Your task to perform on an android device: What's the latest video from GameXplain? Image 0: 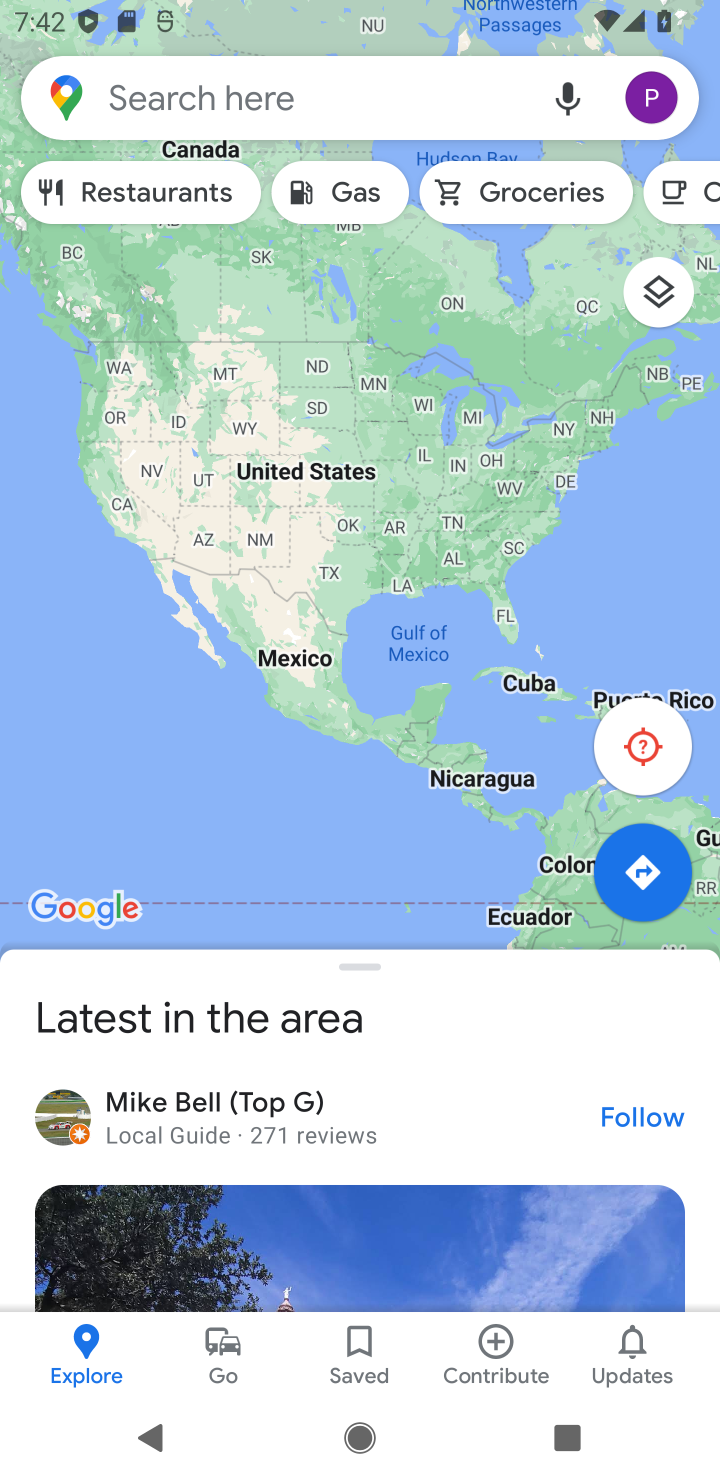
Step 0: press back button
Your task to perform on an android device: What's the latest video from GameXplain? Image 1: 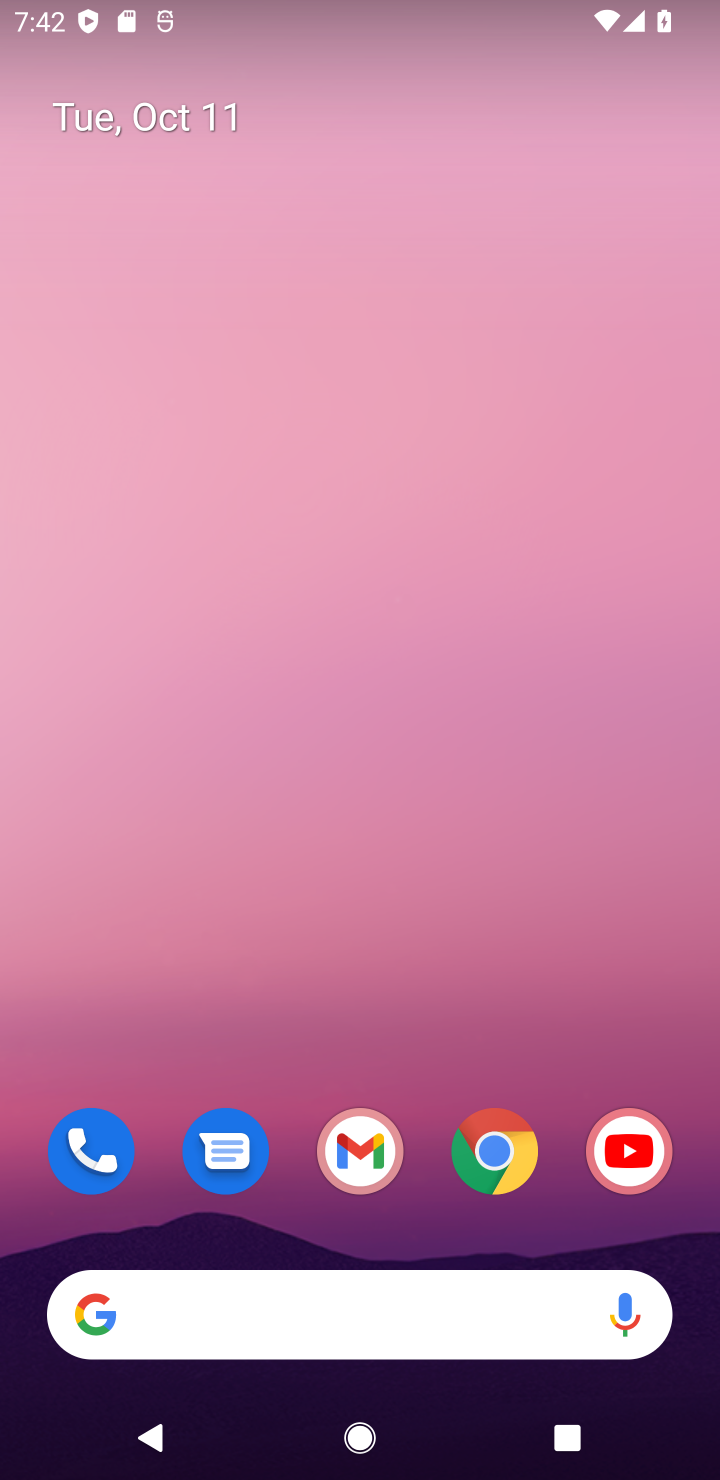
Step 1: drag from (429, 864) to (445, 275)
Your task to perform on an android device: What's the latest video from GameXplain? Image 2: 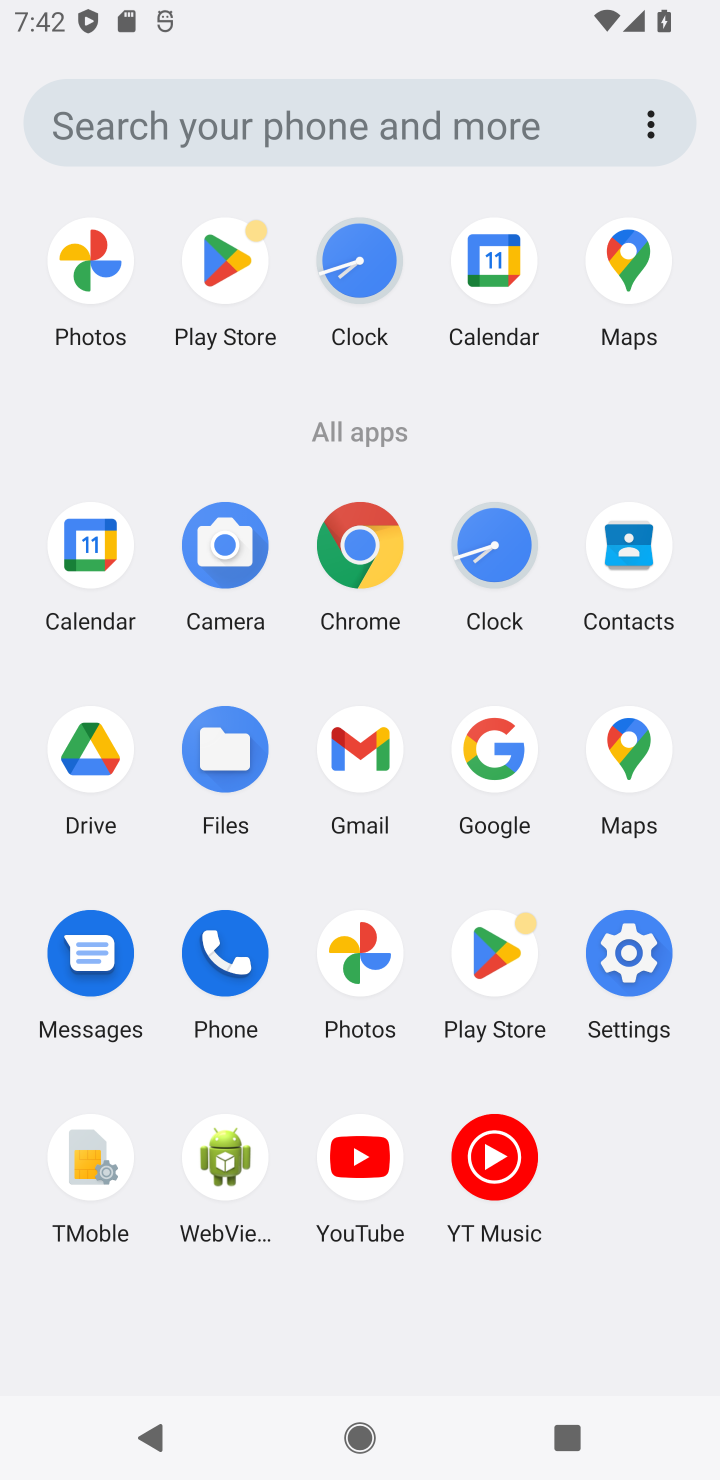
Step 2: click (352, 1152)
Your task to perform on an android device: What's the latest video from GameXplain? Image 3: 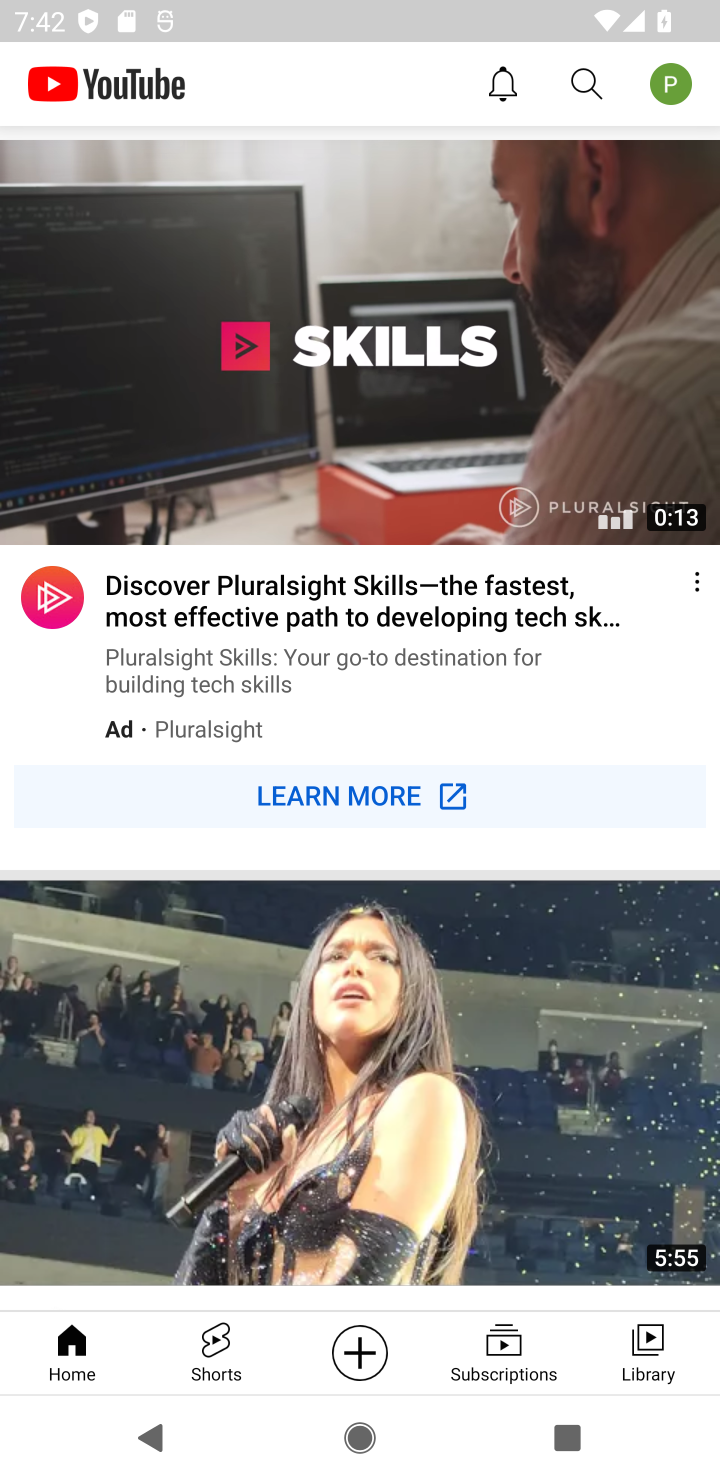
Step 3: click (575, 101)
Your task to perform on an android device: What's the latest video from GameXplain? Image 4: 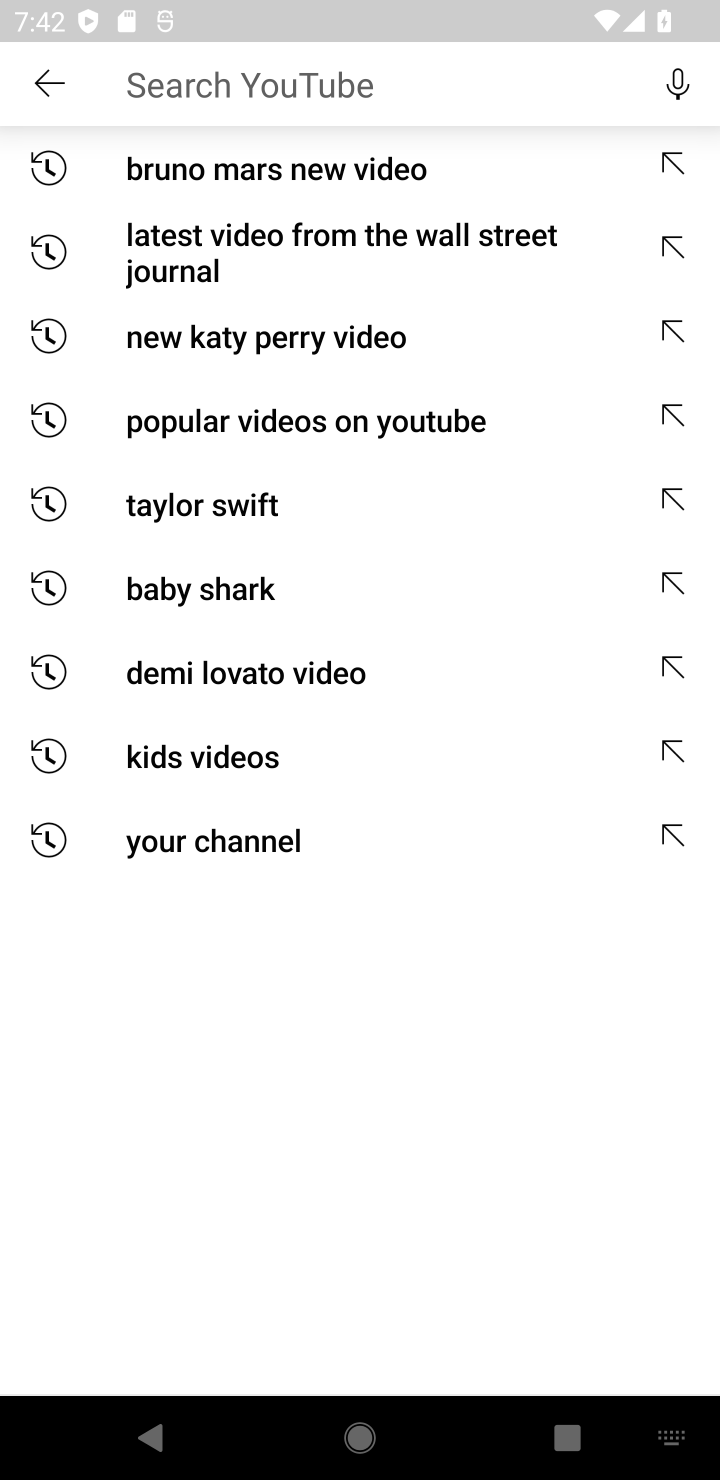
Step 4: click (352, 69)
Your task to perform on an android device: What's the latest video from GameXplain? Image 5: 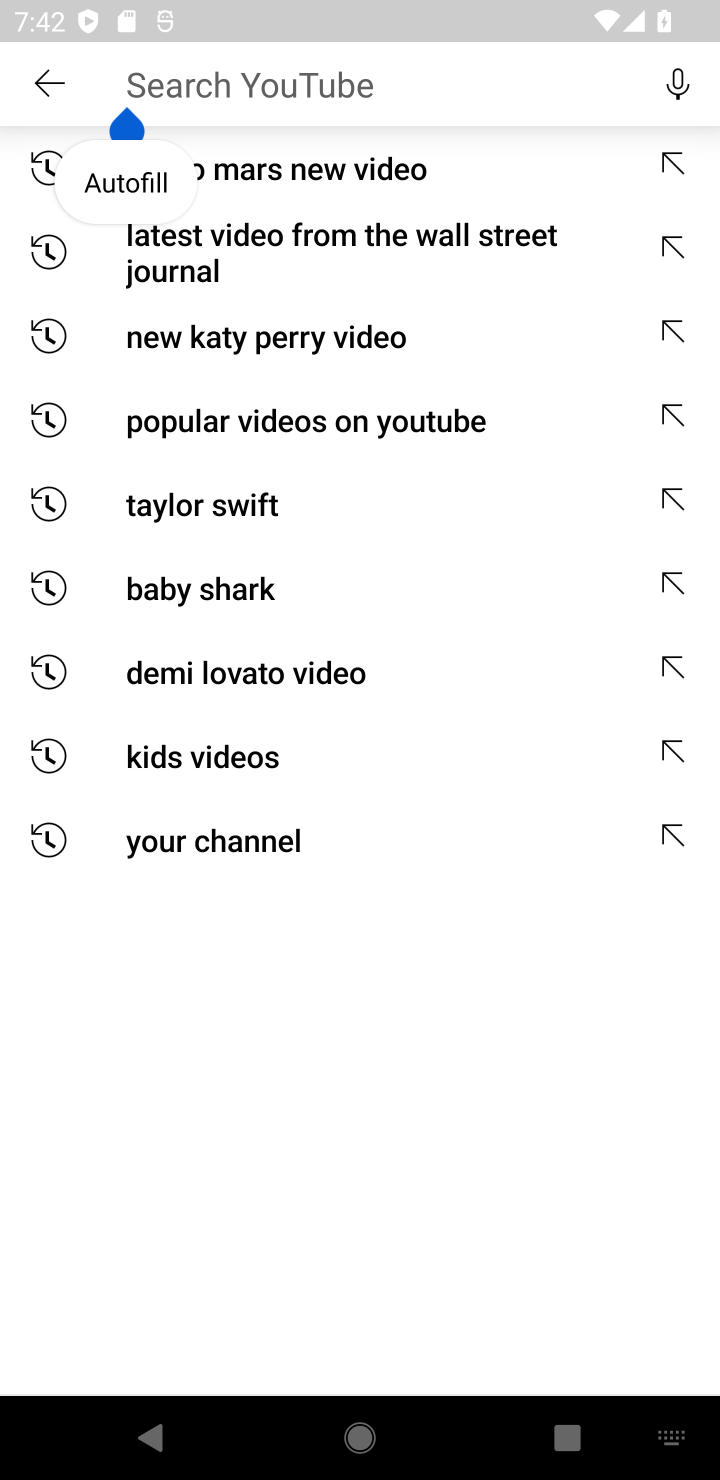
Step 5: type "est video from GameXplain?"
Your task to perform on an android device: What's the latest video from GameXplain? Image 6: 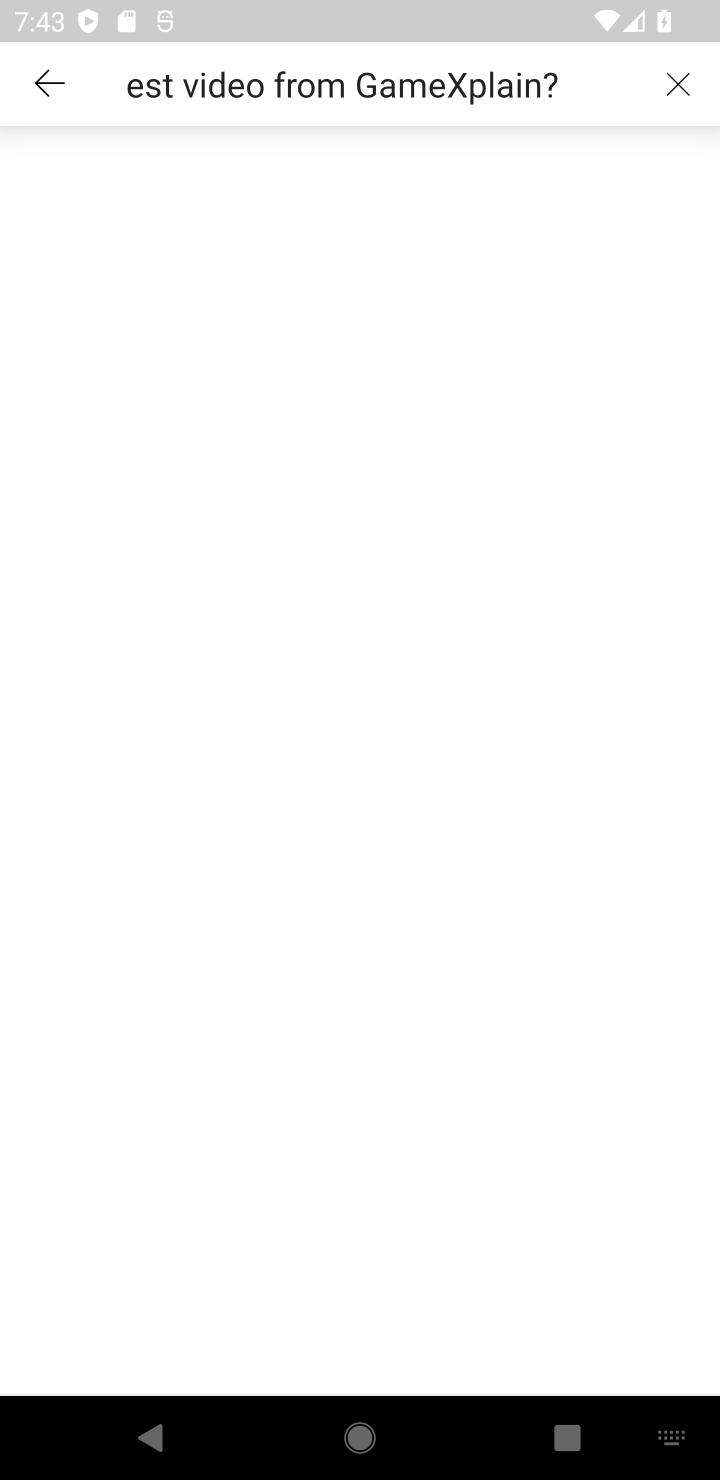
Step 6: type ""
Your task to perform on an android device: What's the latest video from GameXplain? Image 7: 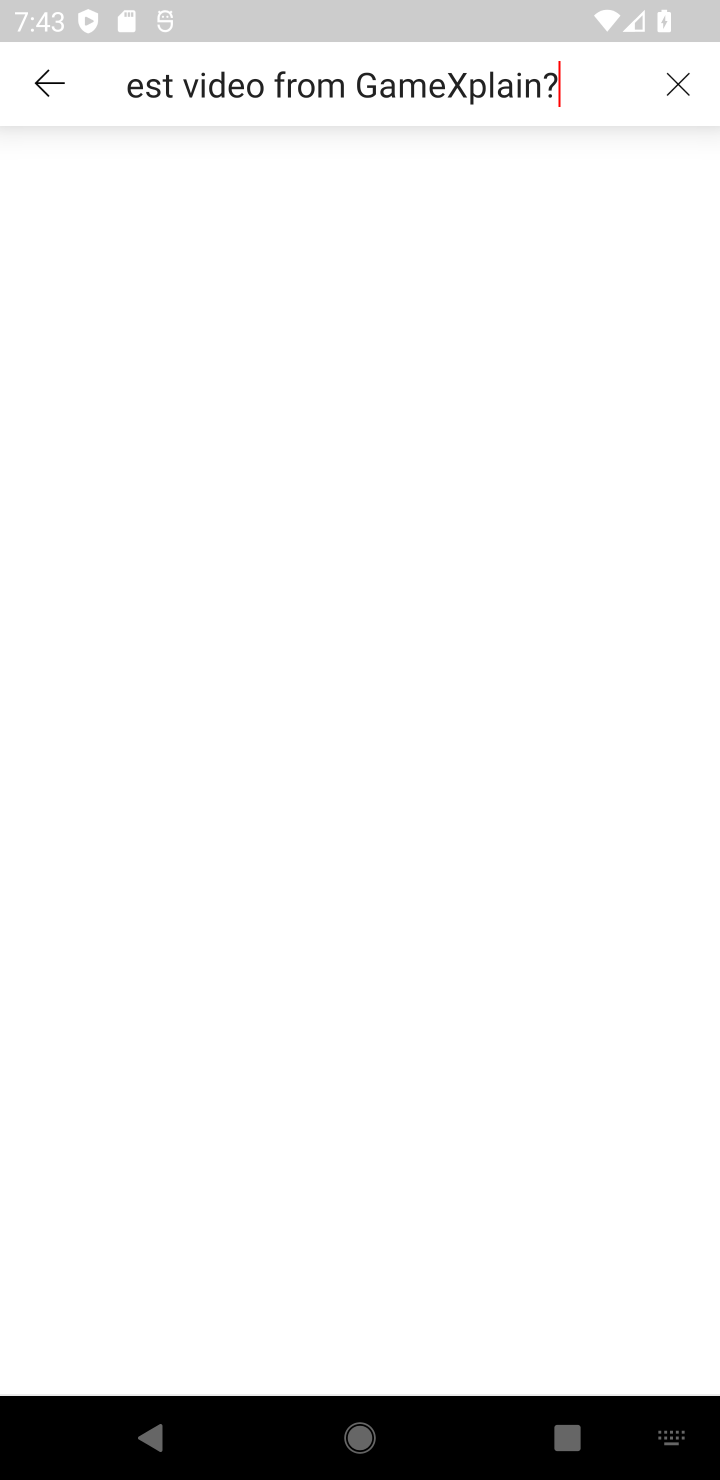
Step 7: press enter
Your task to perform on an android device: What's the latest video from GameXplain? Image 8: 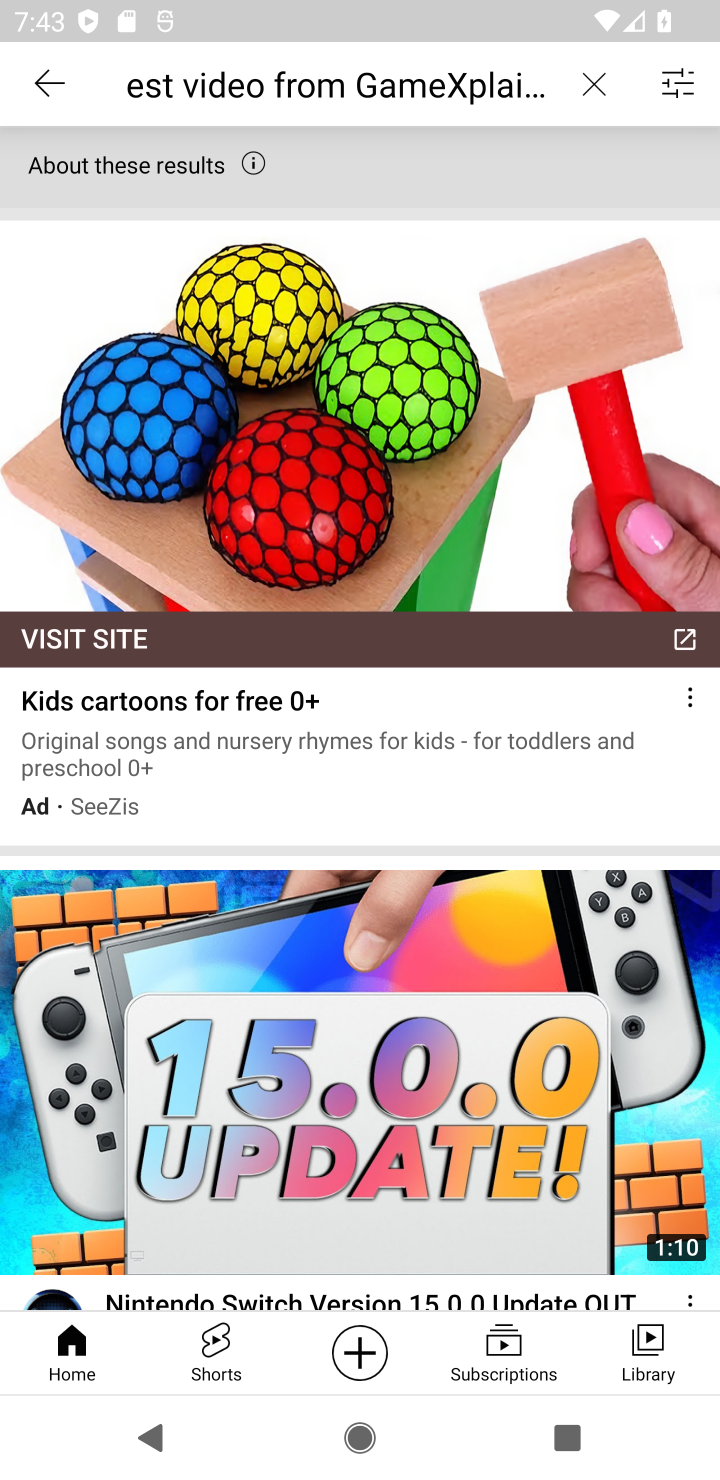
Step 8: drag from (243, 704) to (289, 405)
Your task to perform on an android device: What's the latest video from GameXplain? Image 9: 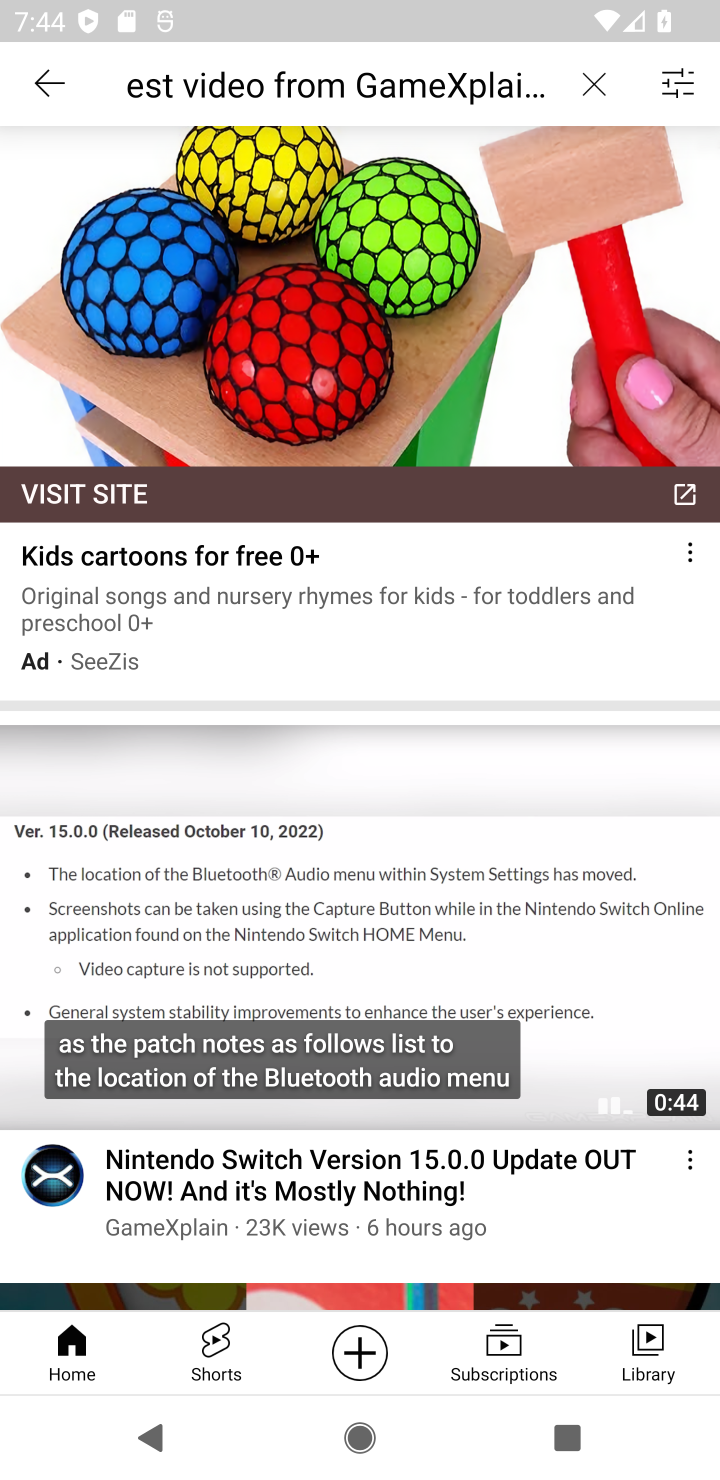
Step 9: click (354, 407)
Your task to perform on an android device: What's the latest video from GameXplain? Image 10: 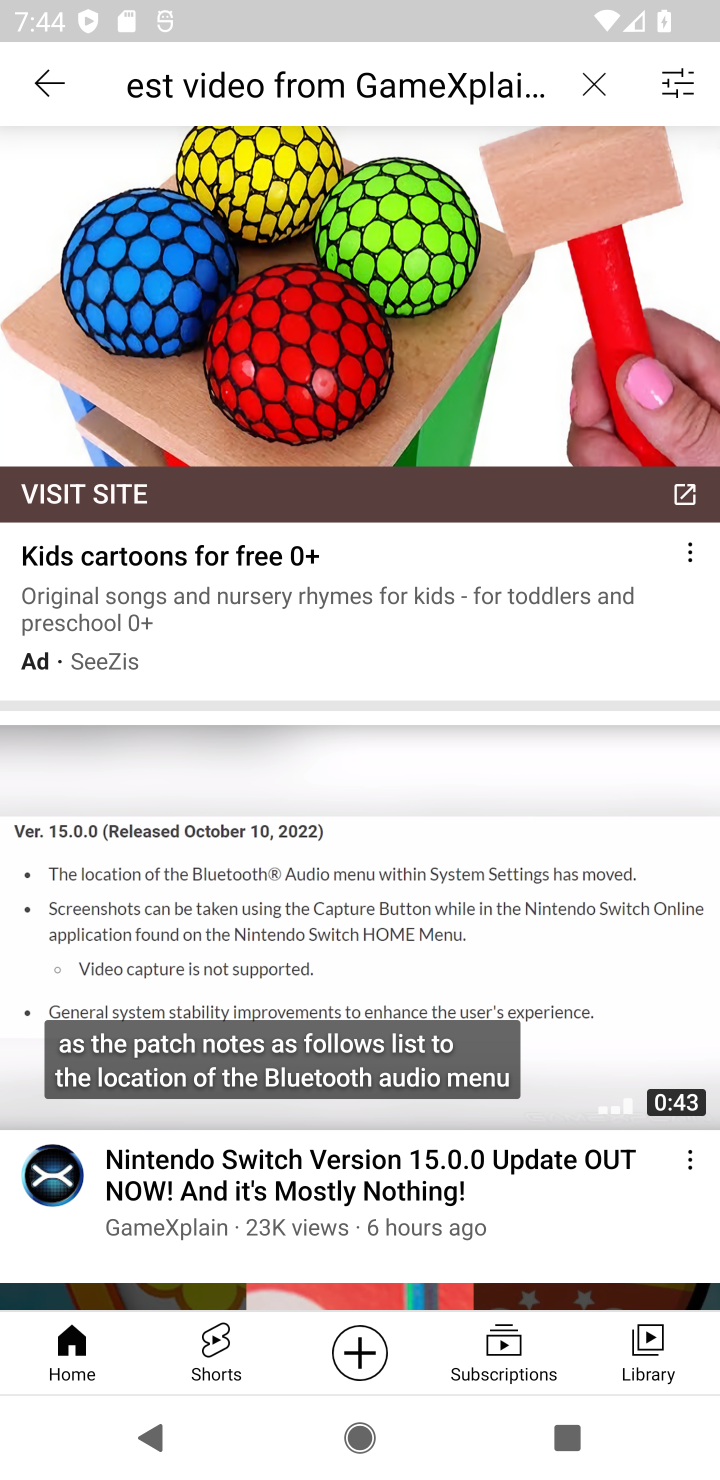
Step 10: drag from (286, 726) to (276, 650)
Your task to perform on an android device: What's the latest video from GameXplain? Image 11: 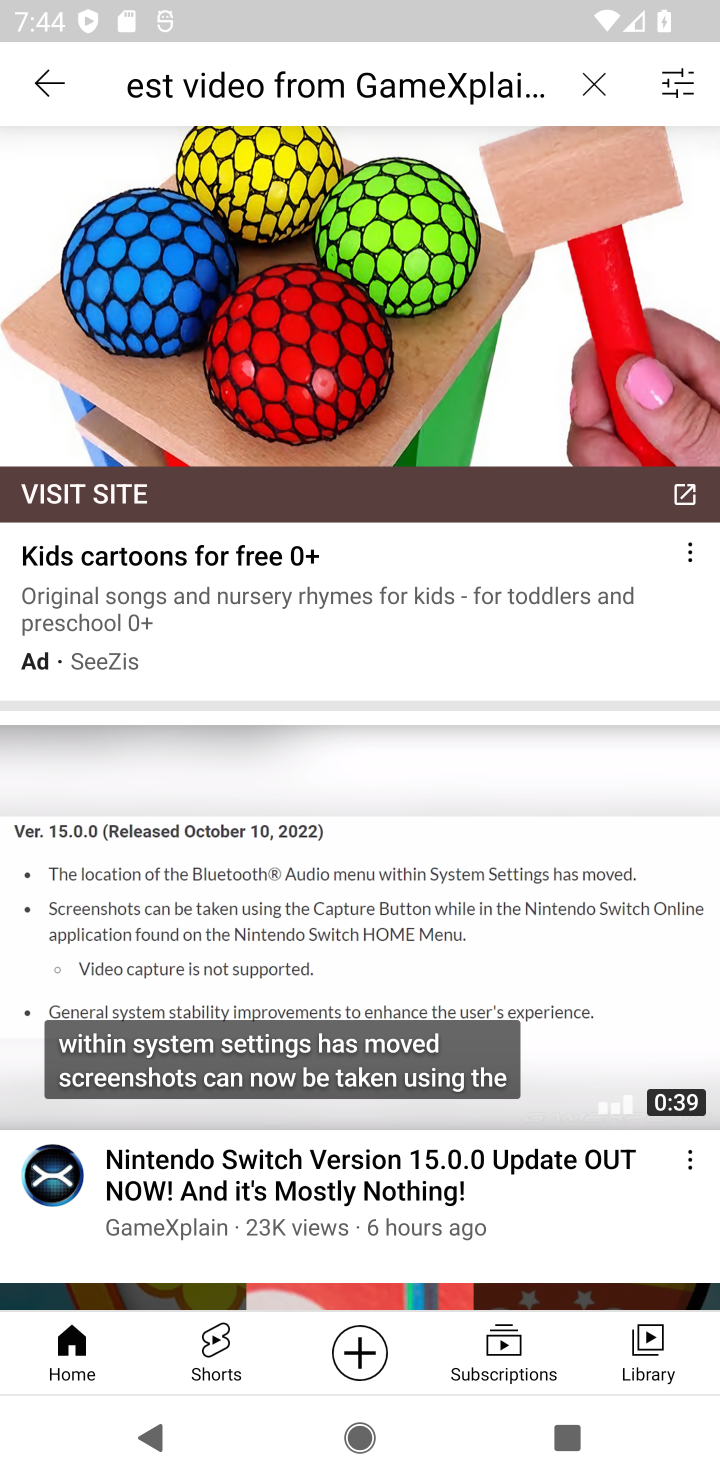
Step 11: click (437, 1025)
Your task to perform on an android device: What's the latest video from GameXplain? Image 12: 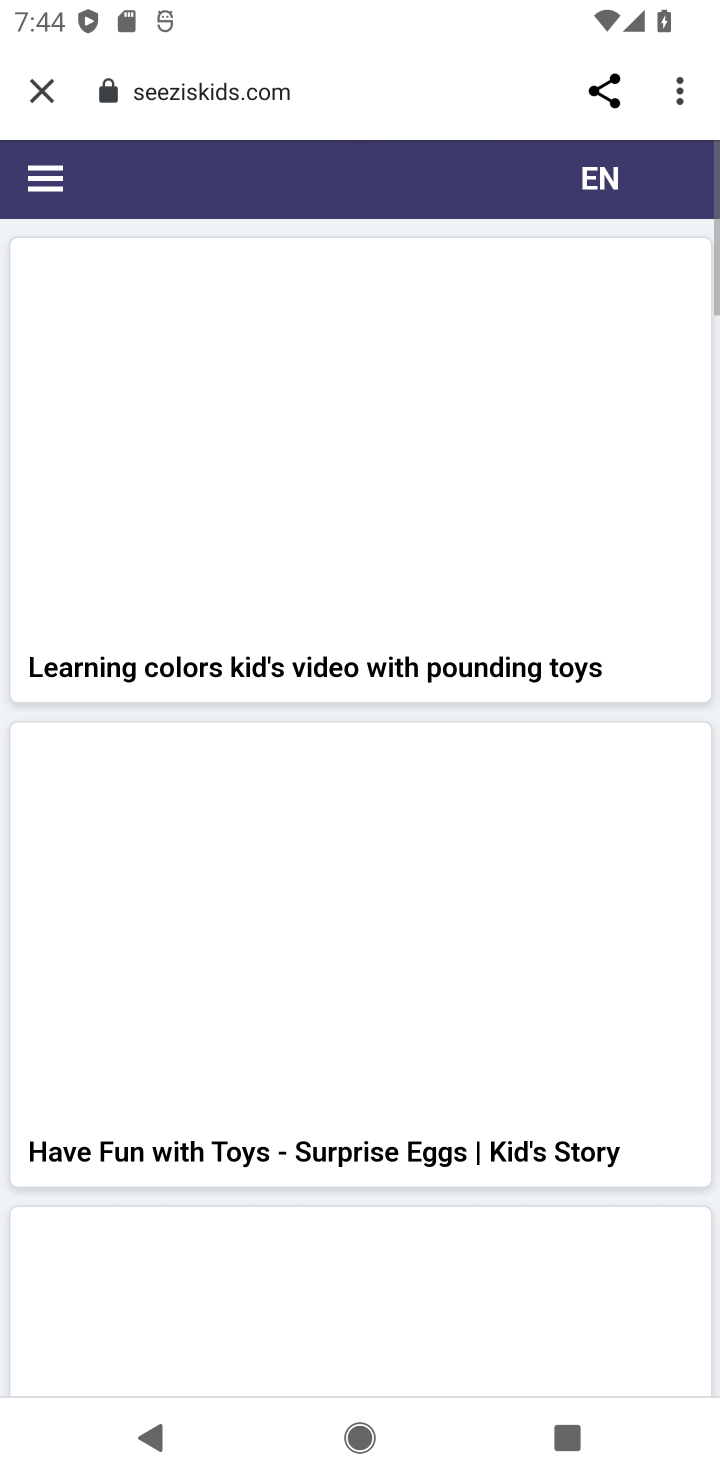
Step 12: click (42, 83)
Your task to perform on an android device: What's the latest video from GameXplain? Image 13: 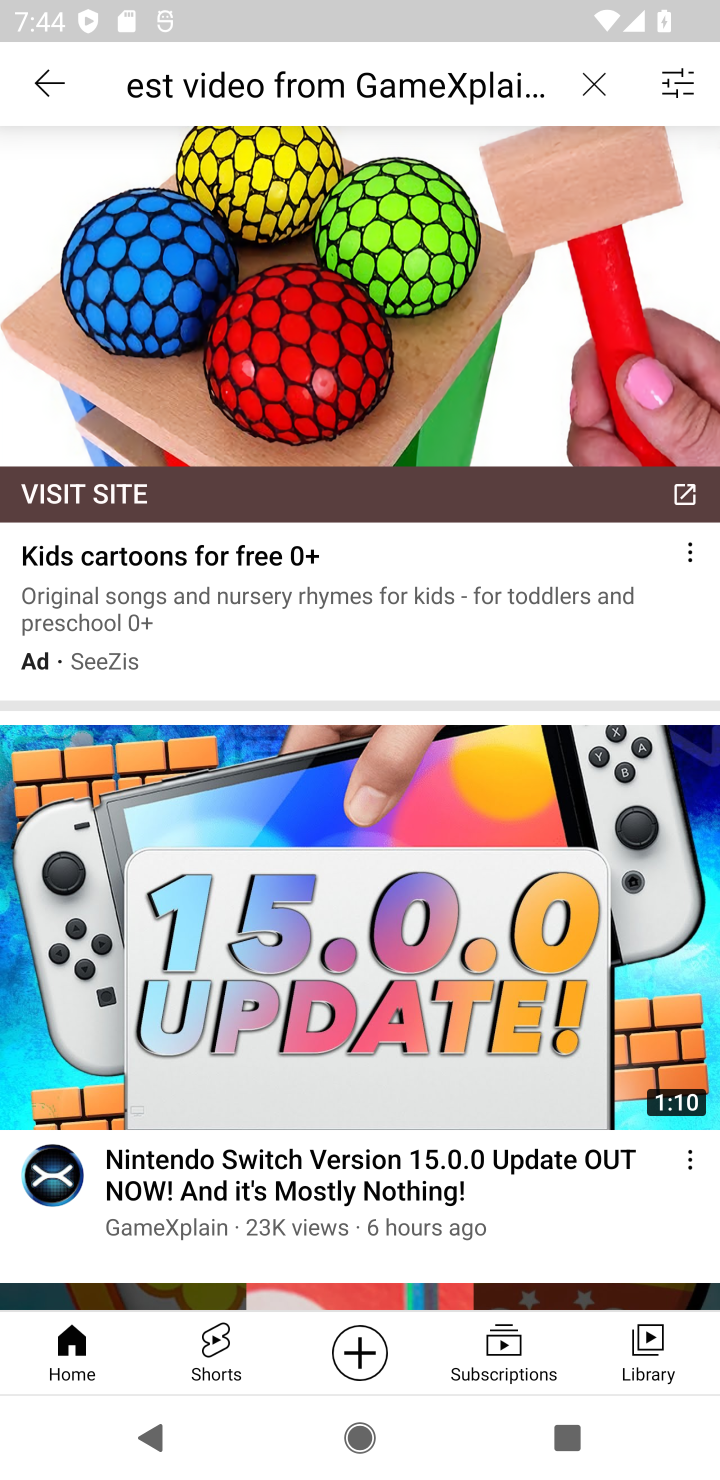
Step 13: click (377, 1058)
Your task to perform on an android device: What's the latest video from GameXplain? Image 14: 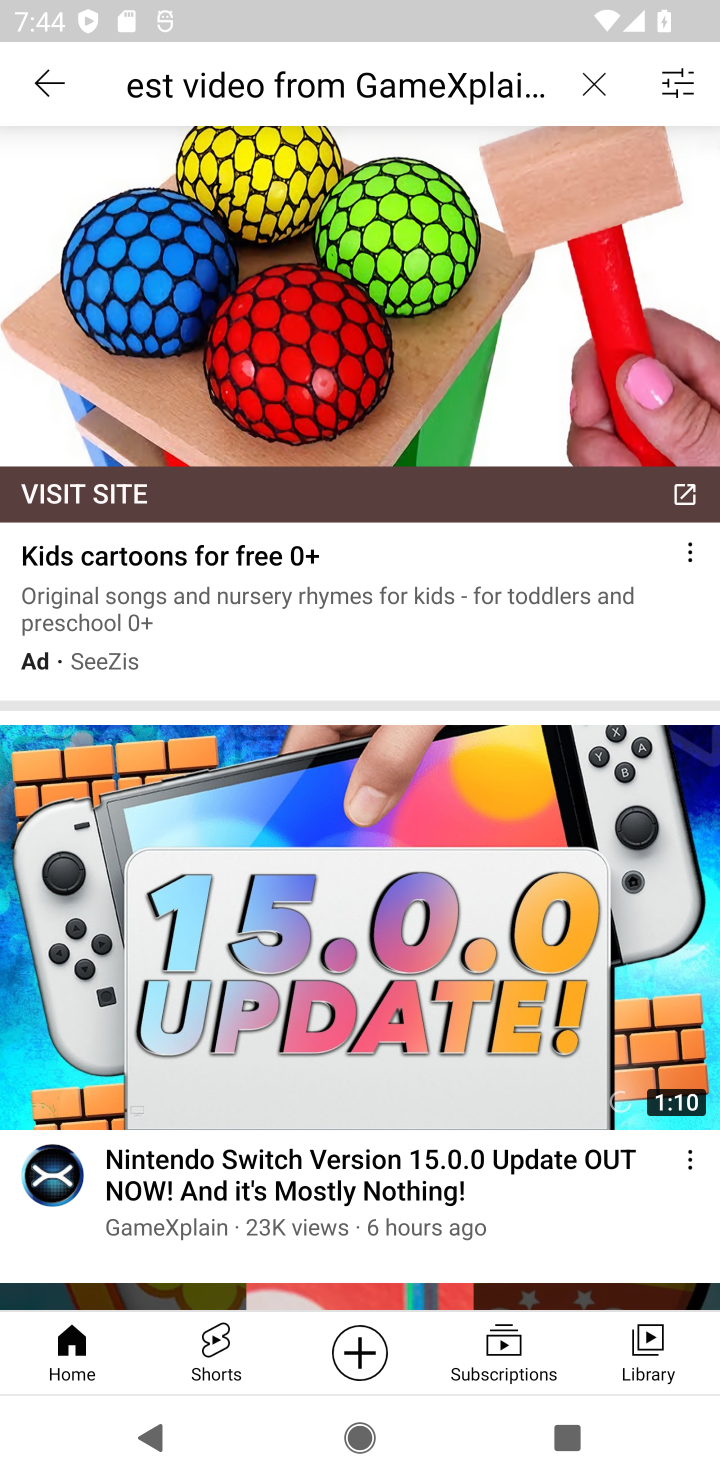
Step 14: click (357, 1030)
Your task to perform on an android device: What's the latest video from GameXplain? Image 15: 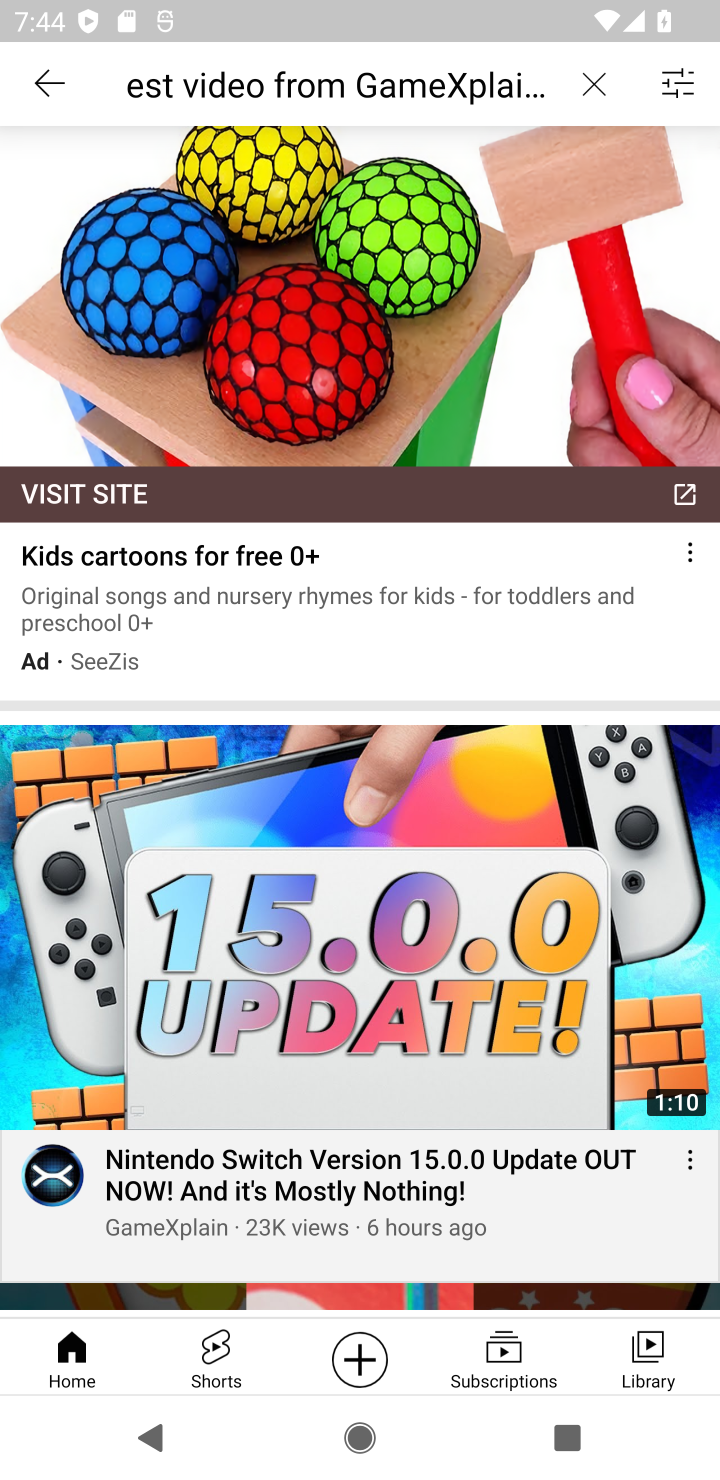
Step 15: click (359, 1011)
Your task to perform on an android device: What's the latest video from GameXplain? Image 16: 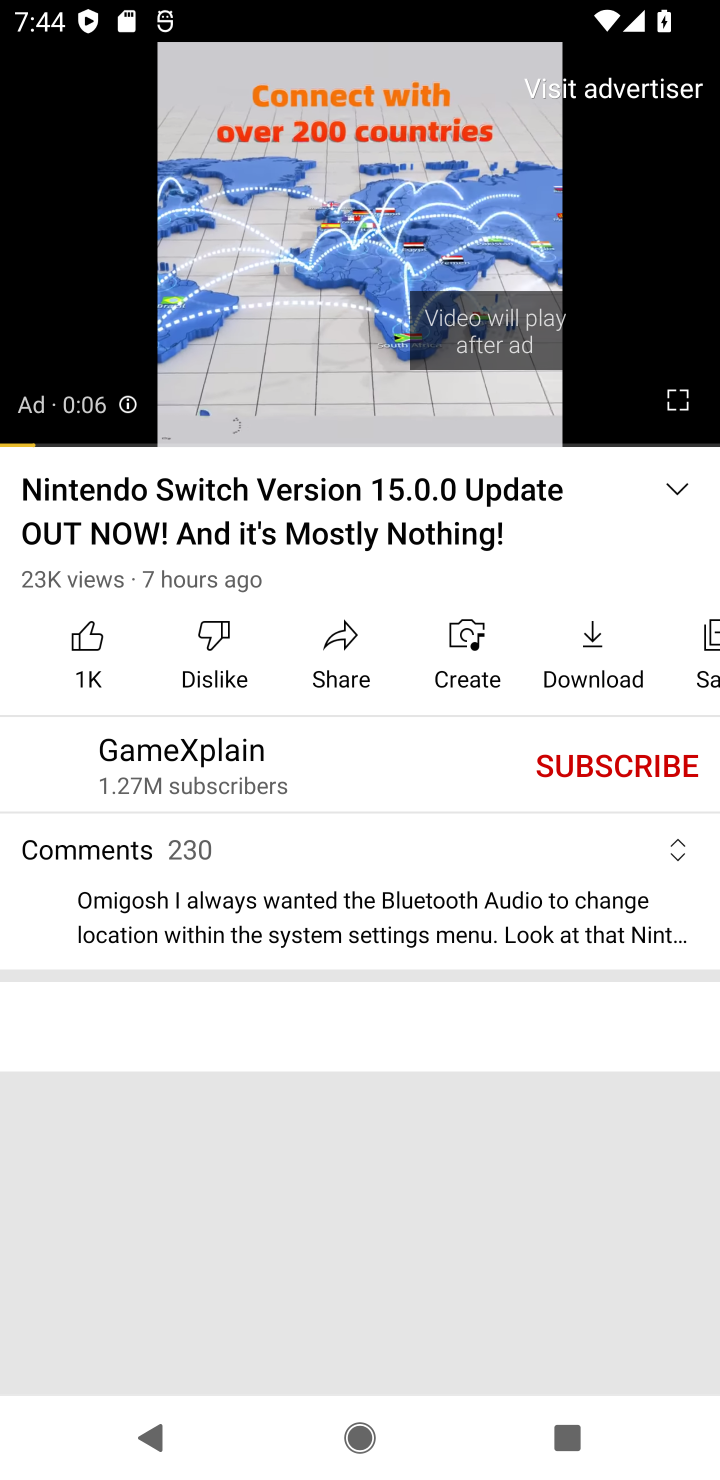
Step 16: click (359, 998)
Your task to perform on an android device: What's the latest video from GameXplain? Image 17: 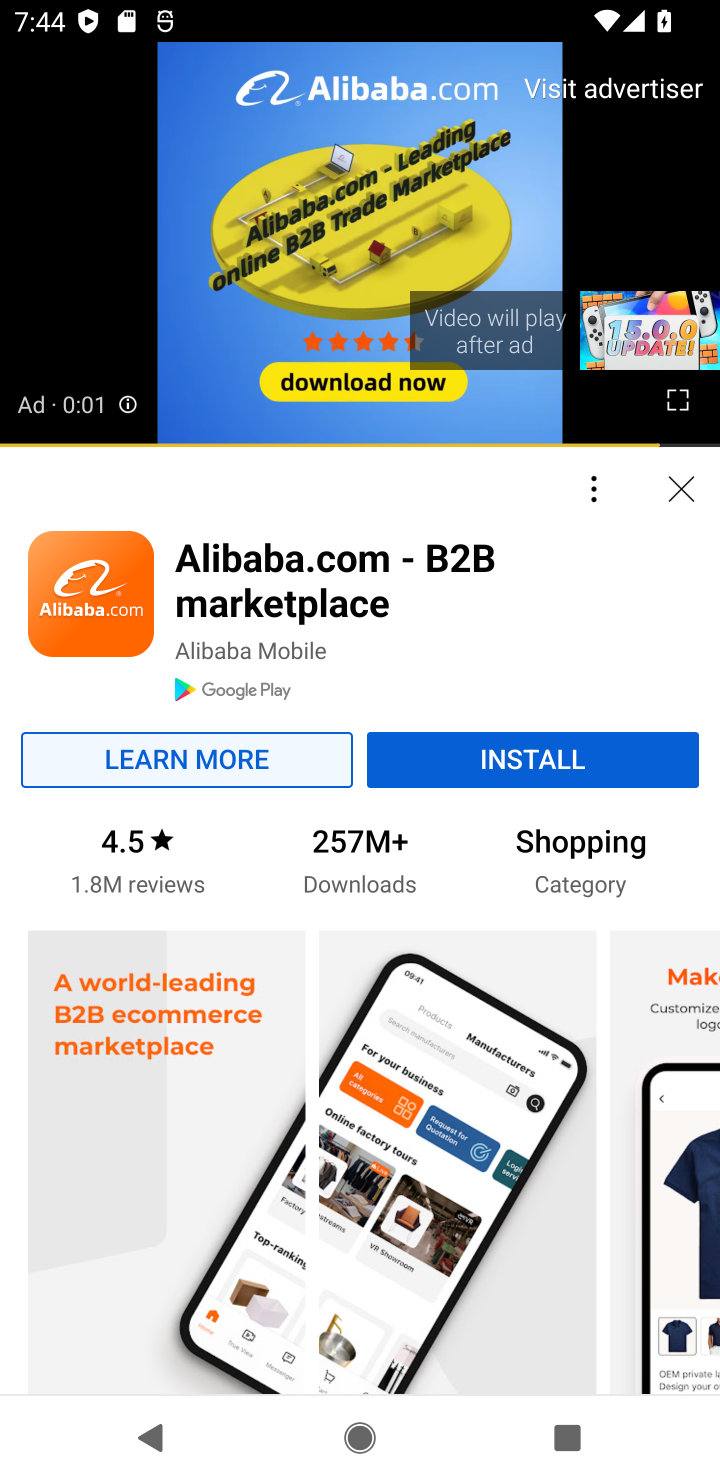
Step 17: click (681, 503)
Your task to perform on an android device: What's the latest video from GameXplain? Image 18: 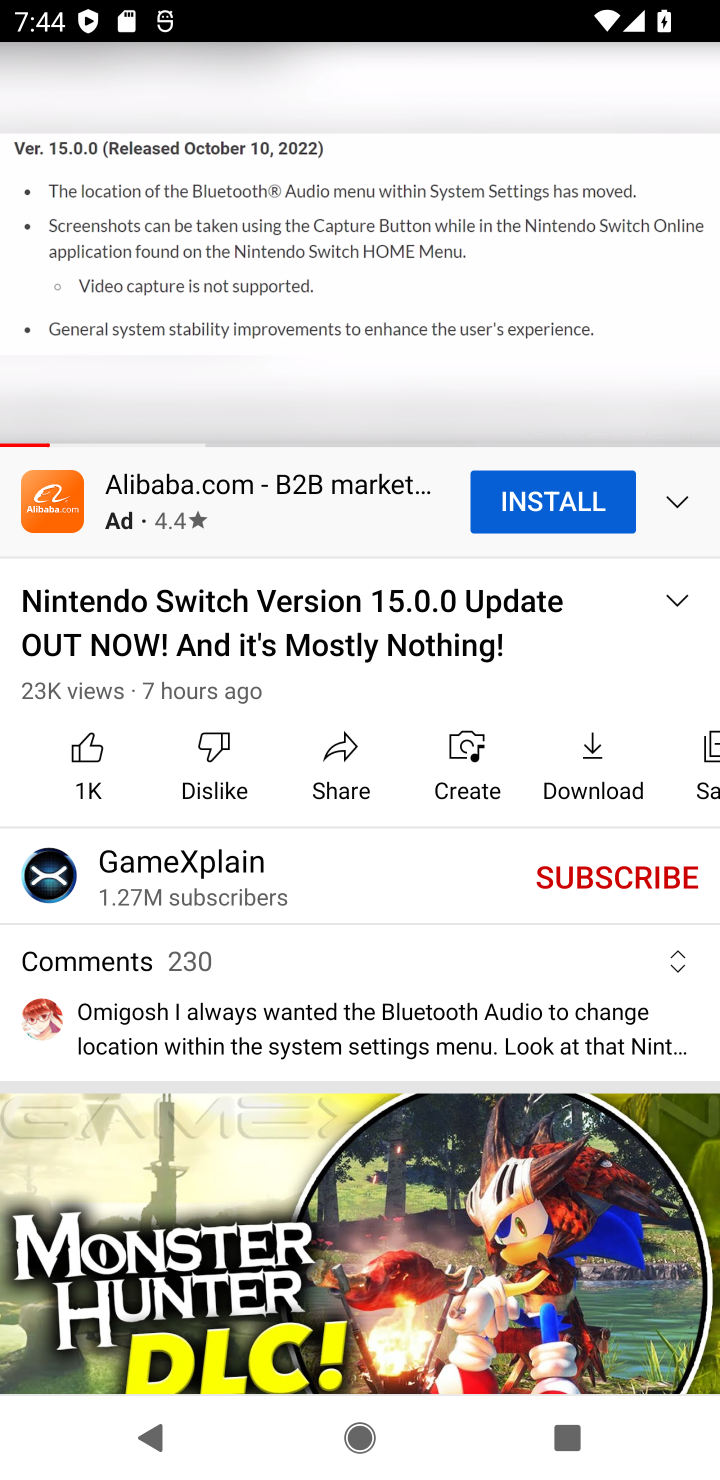
Step 18: click (133, 442)
Your task to perform on an android device: What's the latest video from GameXplain? Image 19: 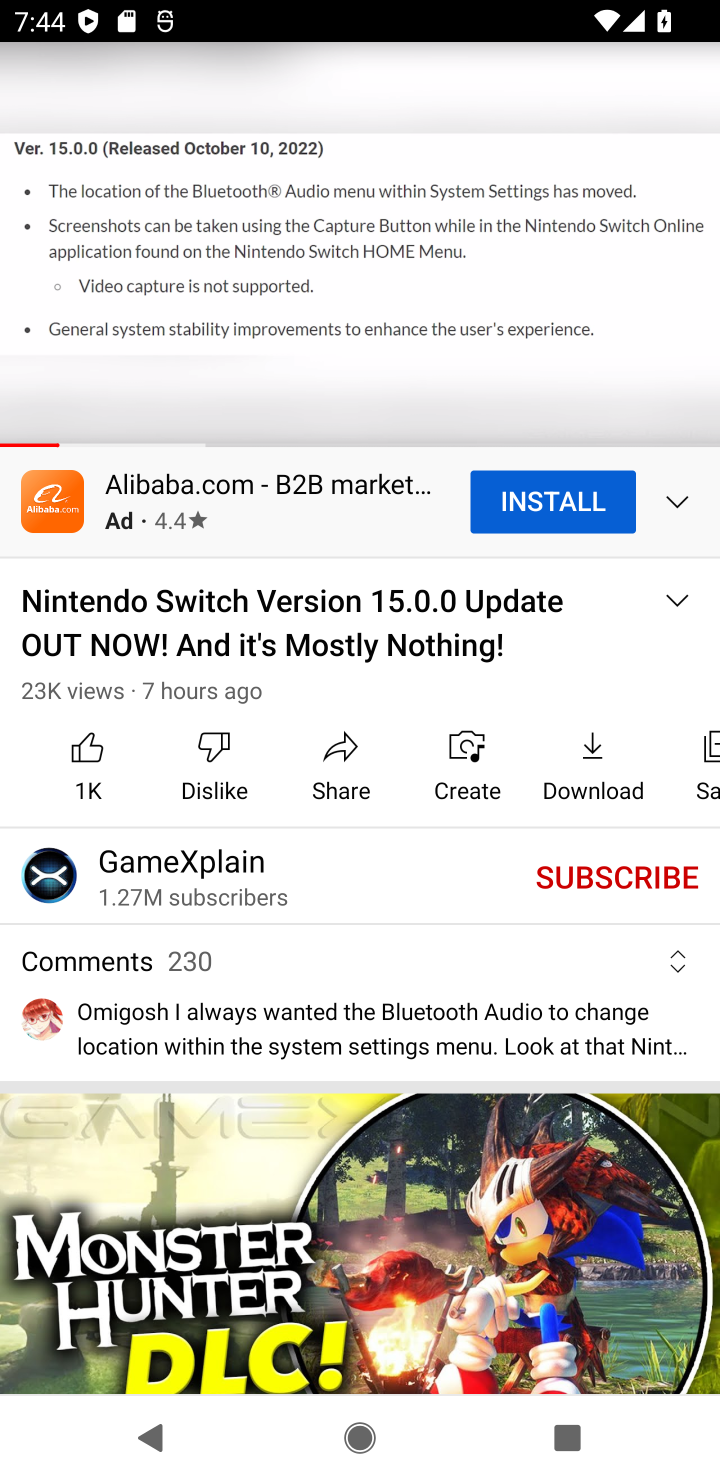
Step 19: click (133, 442)
Your task to perform on an android device: What's the latest video from GameXplain? Image 20: 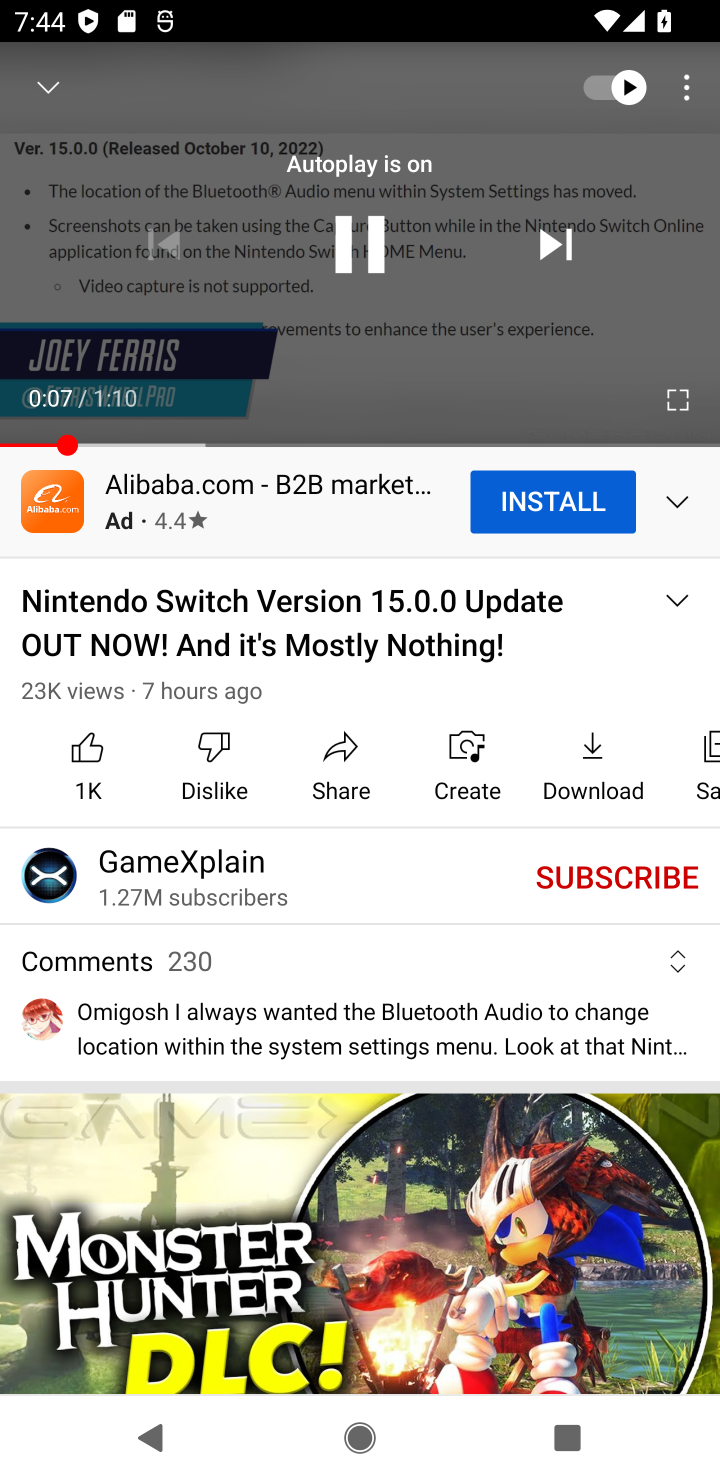
Step 20: click (133, 442)
Your task to perform on an android device: What's the latest video from GameXplain? Image 21: 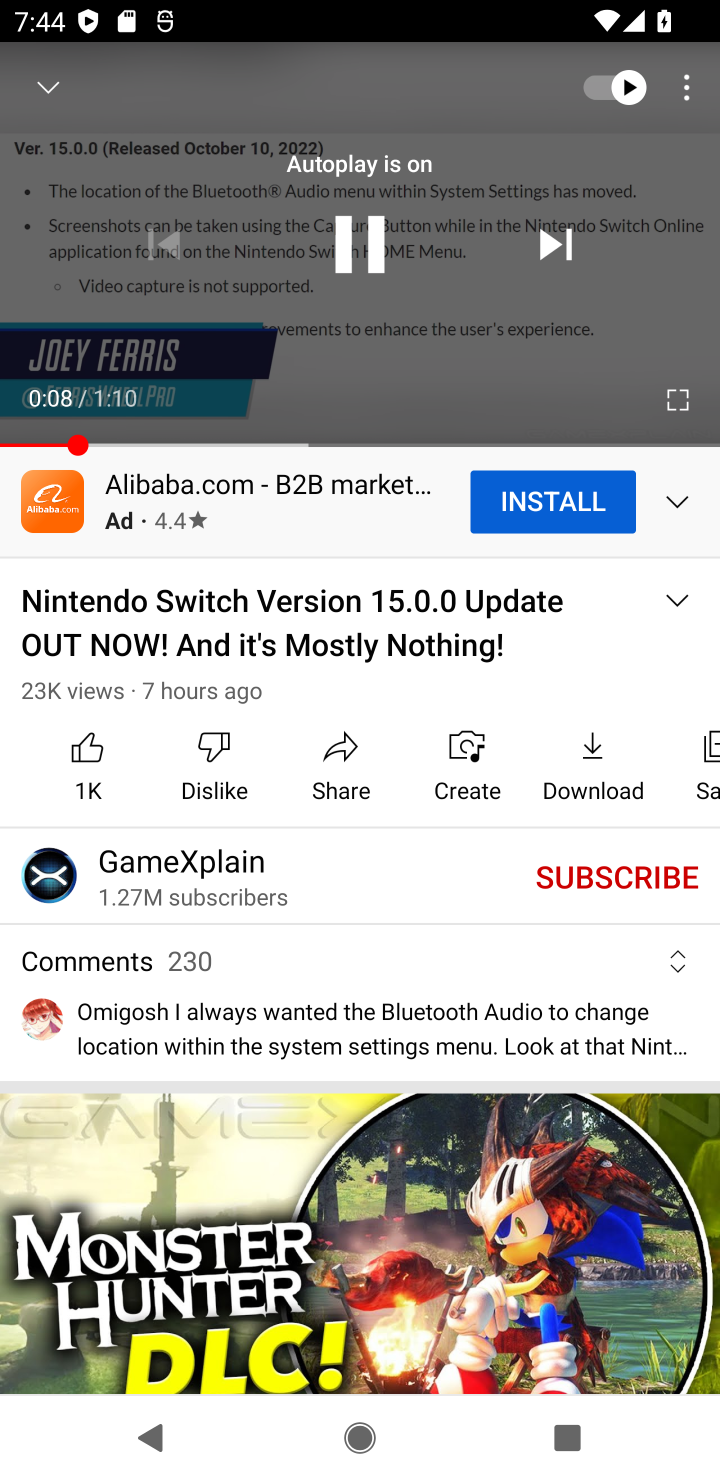
Step 21: click (133, 442)
Your task to perform on an android device: What's the latest video from GameXplain? Image 22: 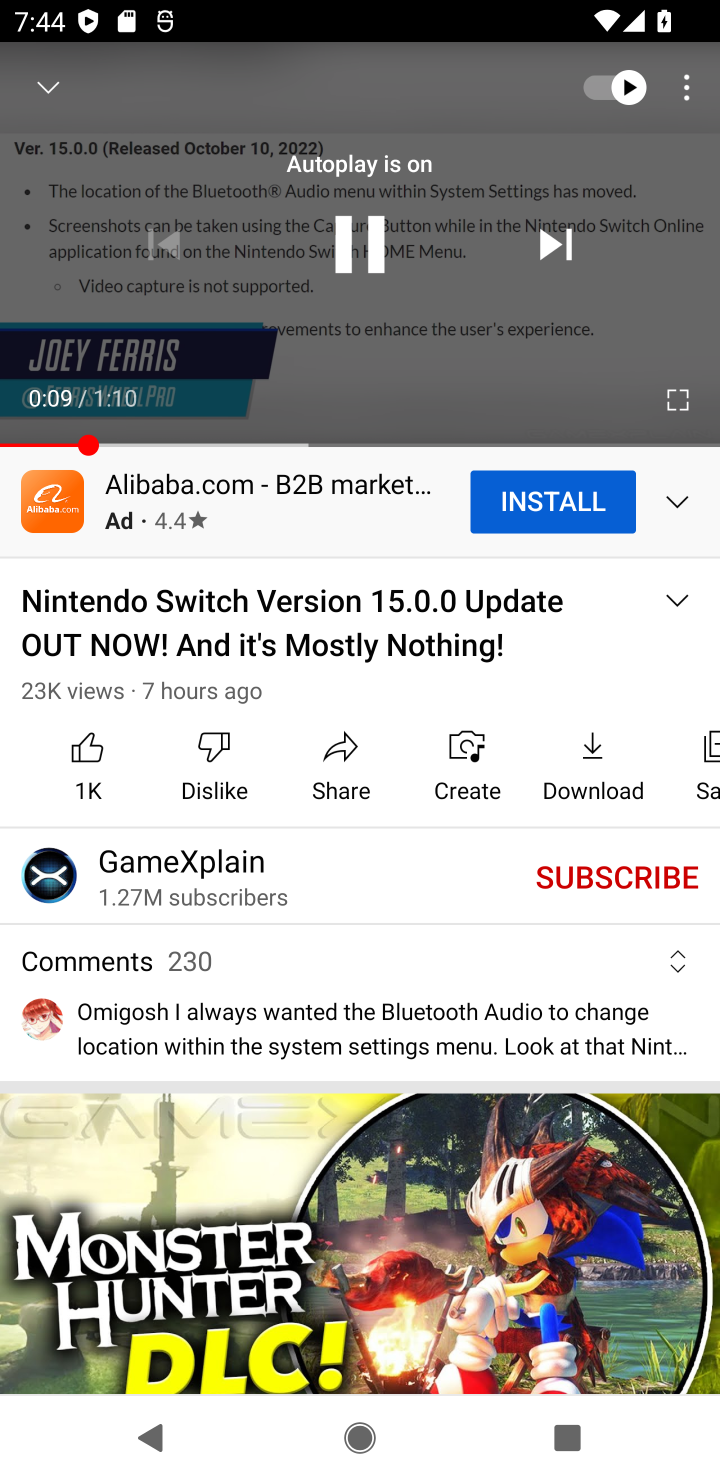
Step 22: click (133, 442)
Your task to perform on an android device: What's the latest video from GameXplain? Image 23: 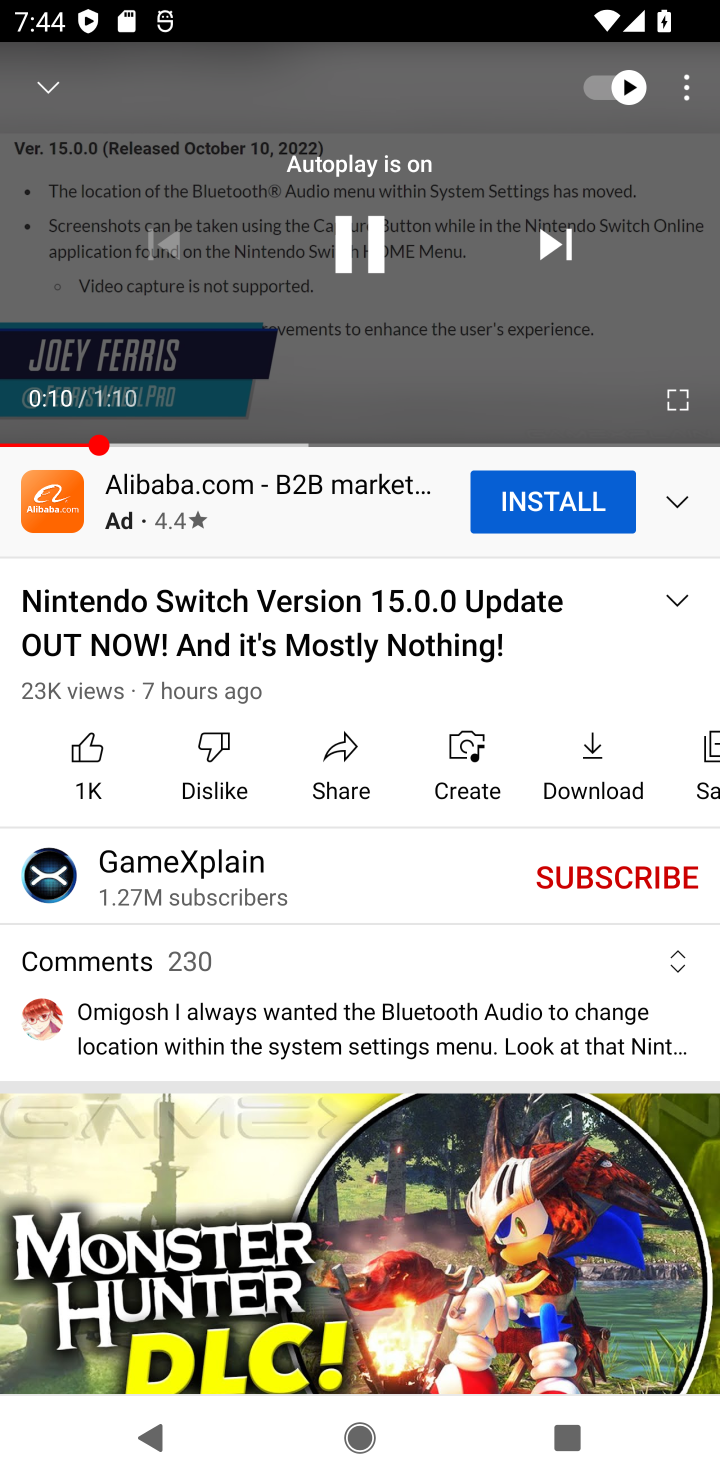
Step 23: click (135, 442)
Your task to perform on an android device: What's the latest video from GameXplain? Image 24: 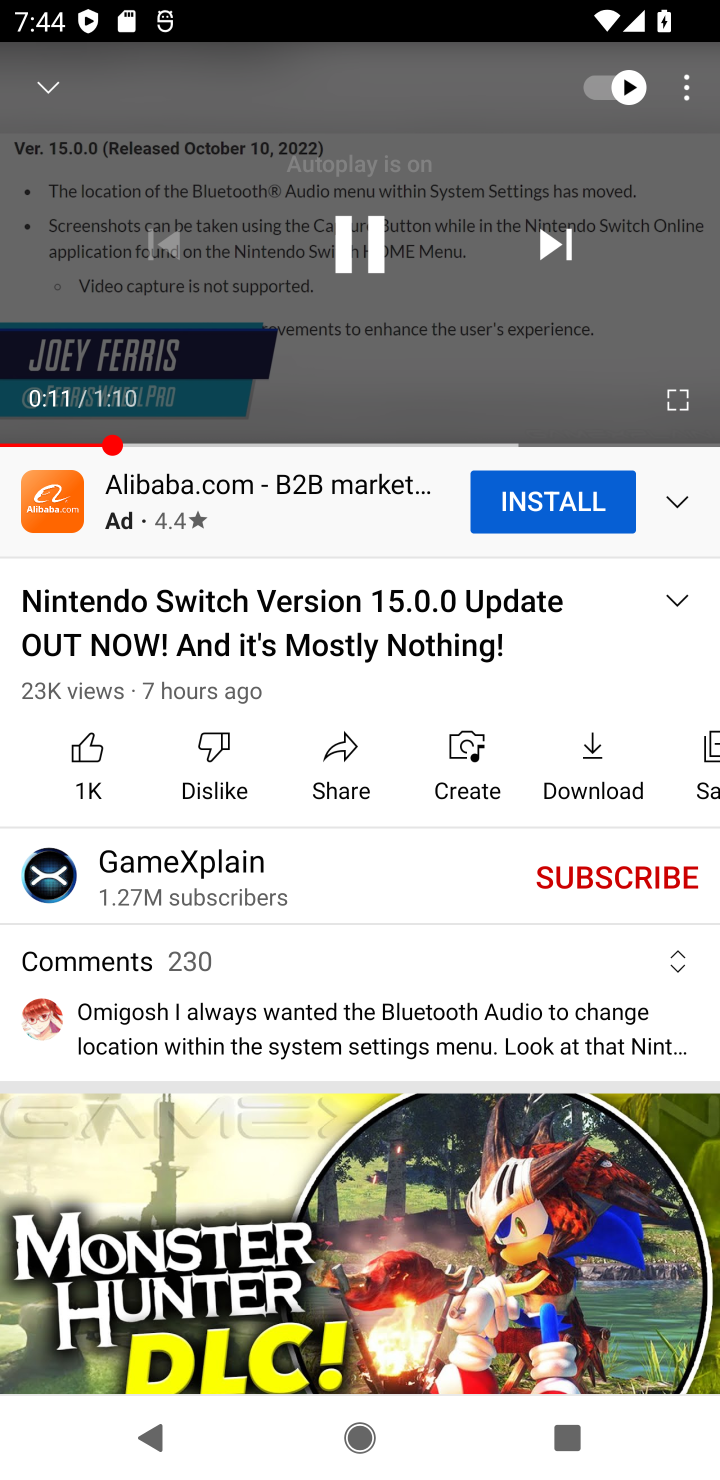
Step 24: click (135, 442)
Your task to perform on an android device: What's the latest video from GameXplain? Image 25: 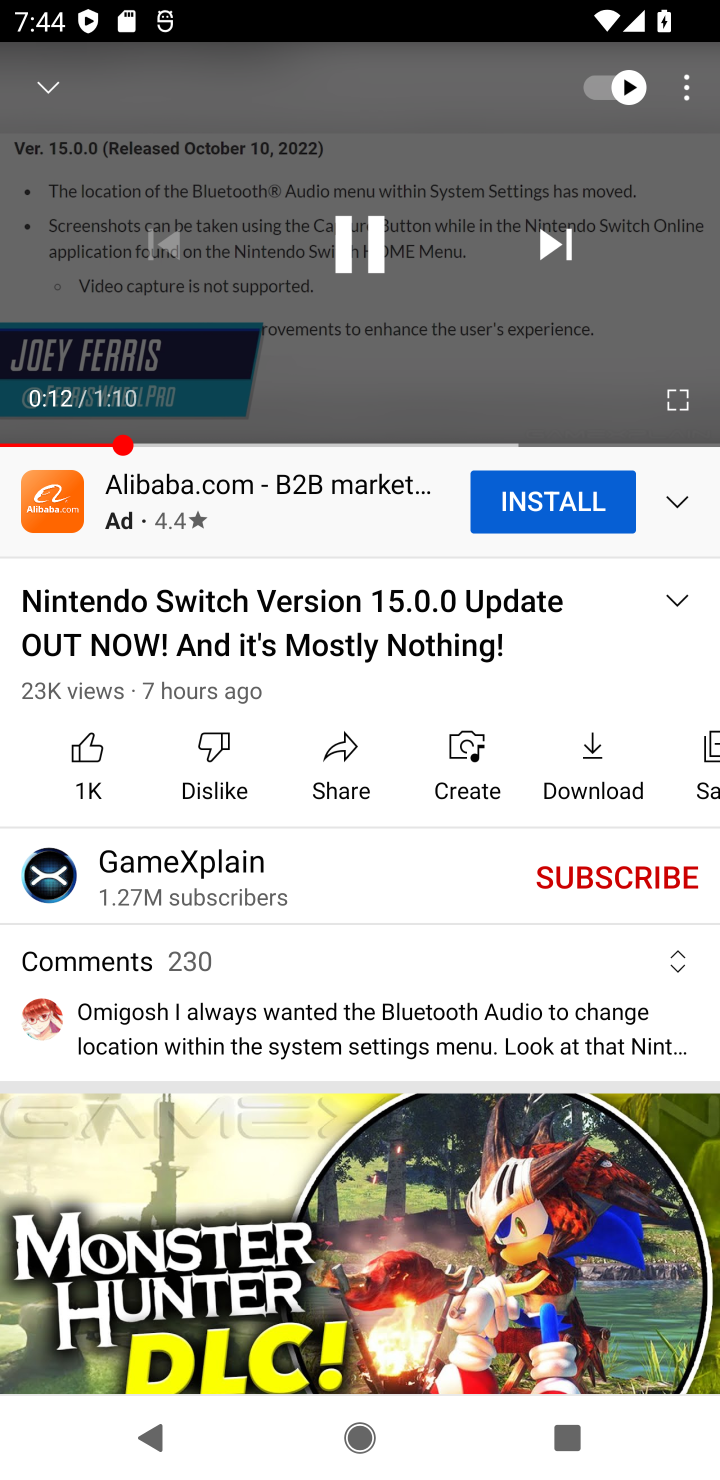
Step 25: click (135, 442)
Your task to perform on an android device: What's the latest video from GameXplain? Image 26: 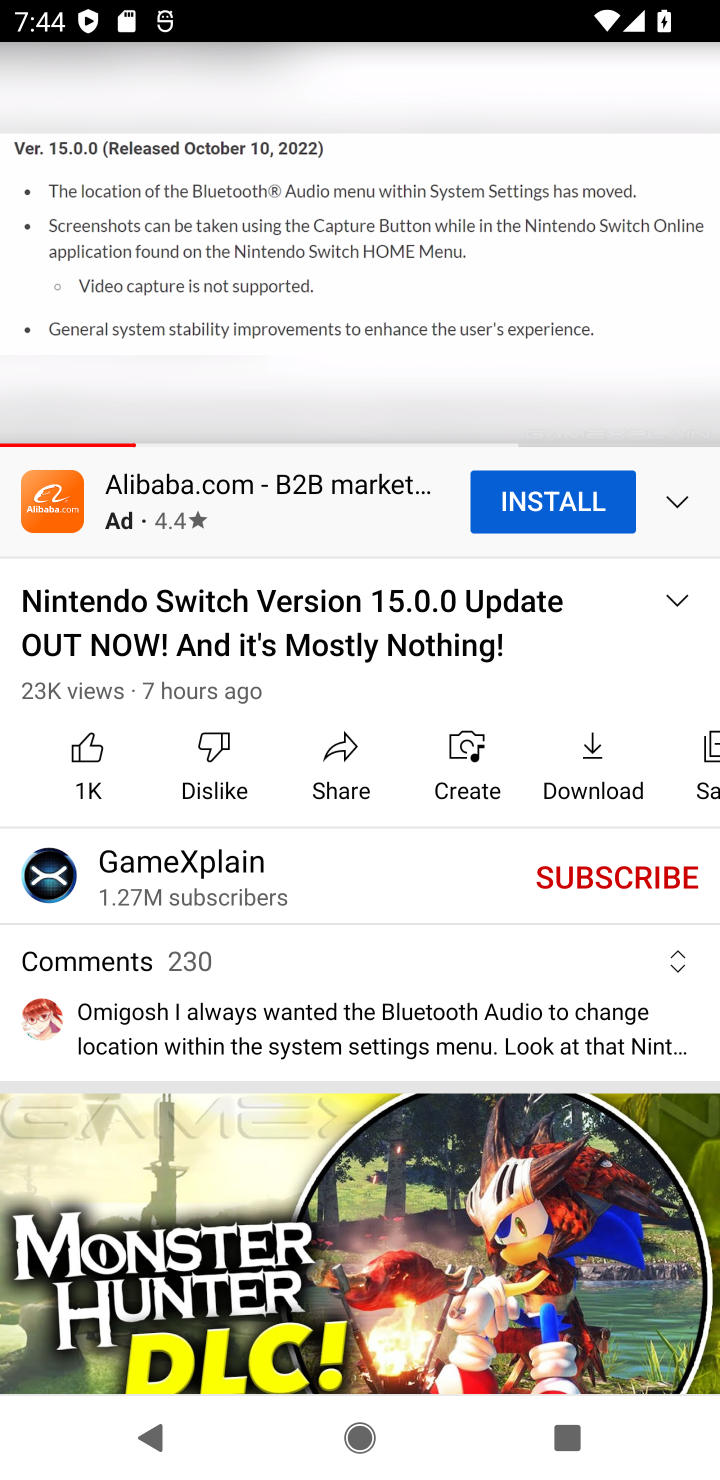
Step 26: click (139, 442)
Your task to perform on an android device: What's the latest video from GameXplain? Image 27: 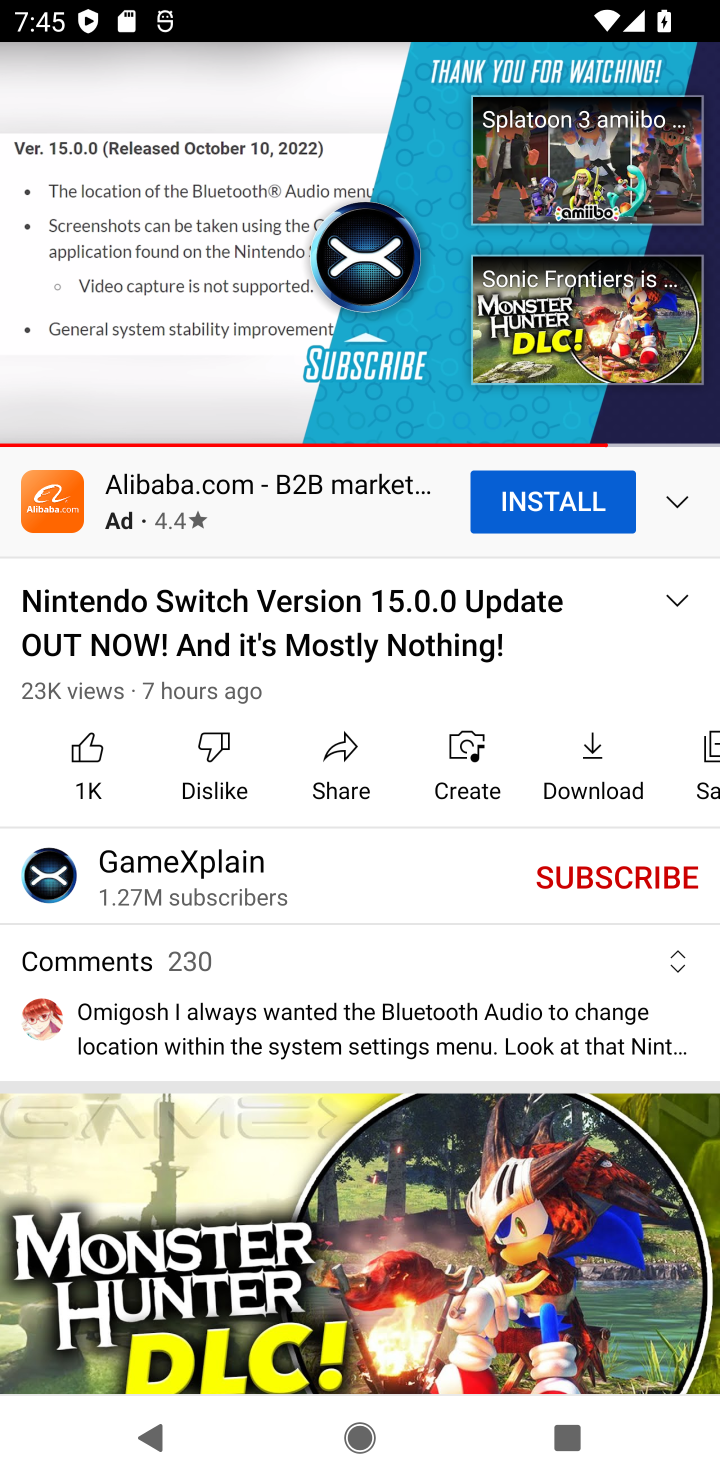
Step 27: click (411, 949)
Your task to perform on an android device: What's the latest video from GameXplain? Image 28: 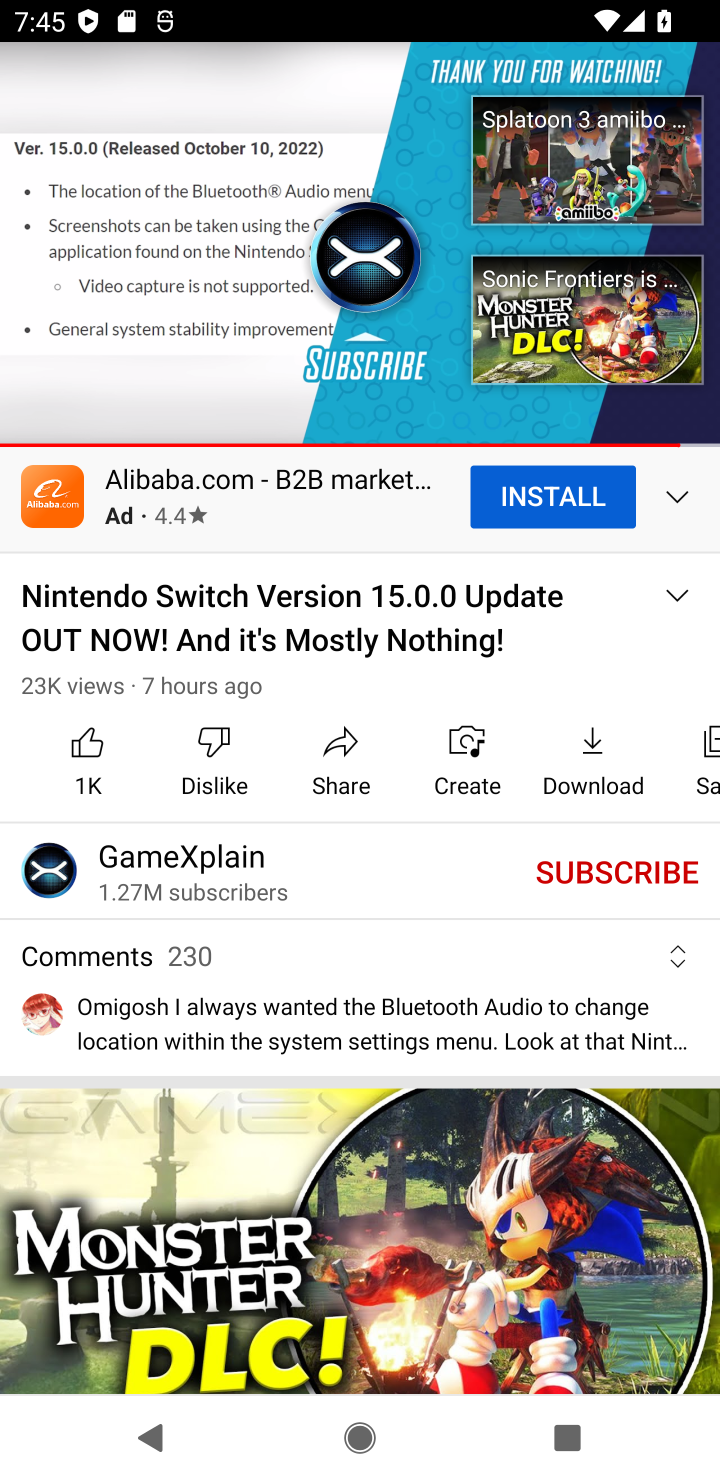
Step 28: drag from (377, 890) to (384, 751)
Your task to perform on an android device: What's the latest video from GameXplain? Image 29: 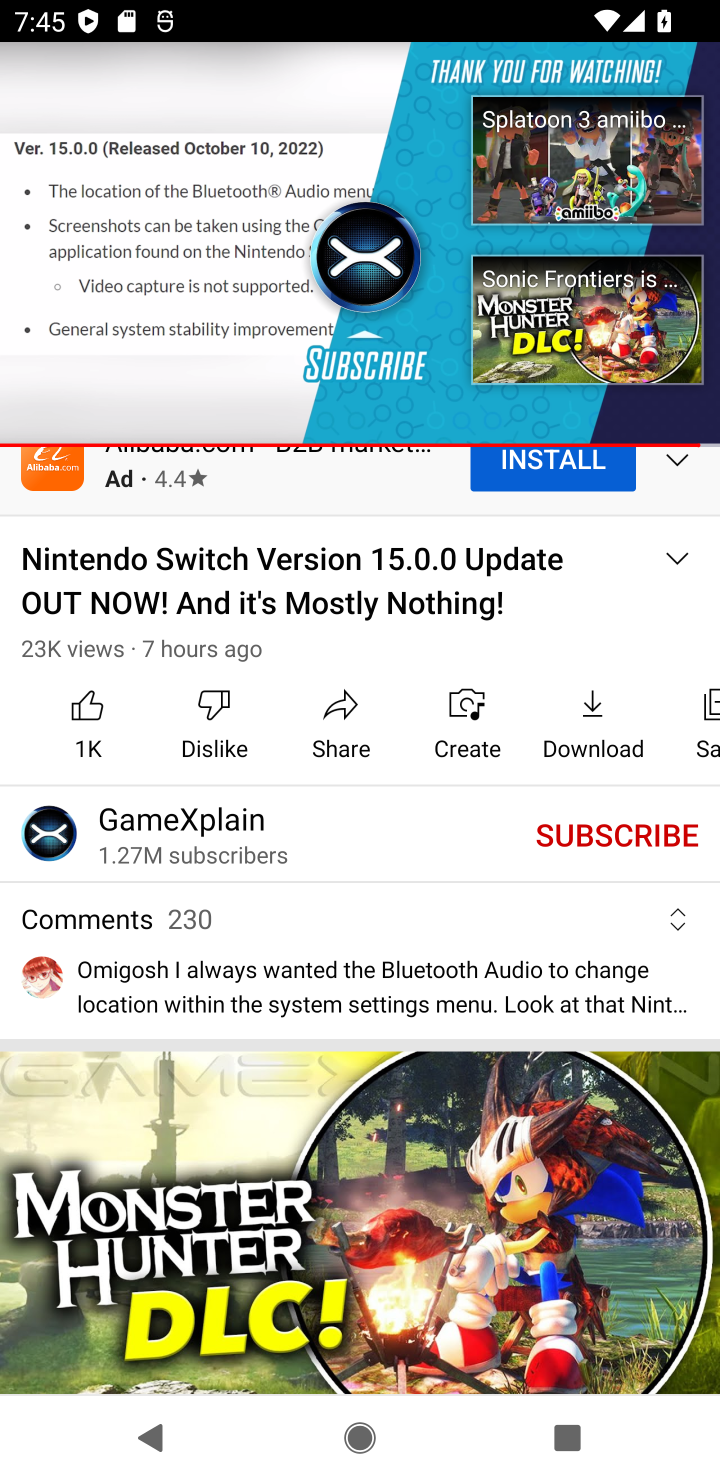
Step 29: click (312, 1216)
Your task to perform on an android device: What's the latest video from GameXplain? Image 30: 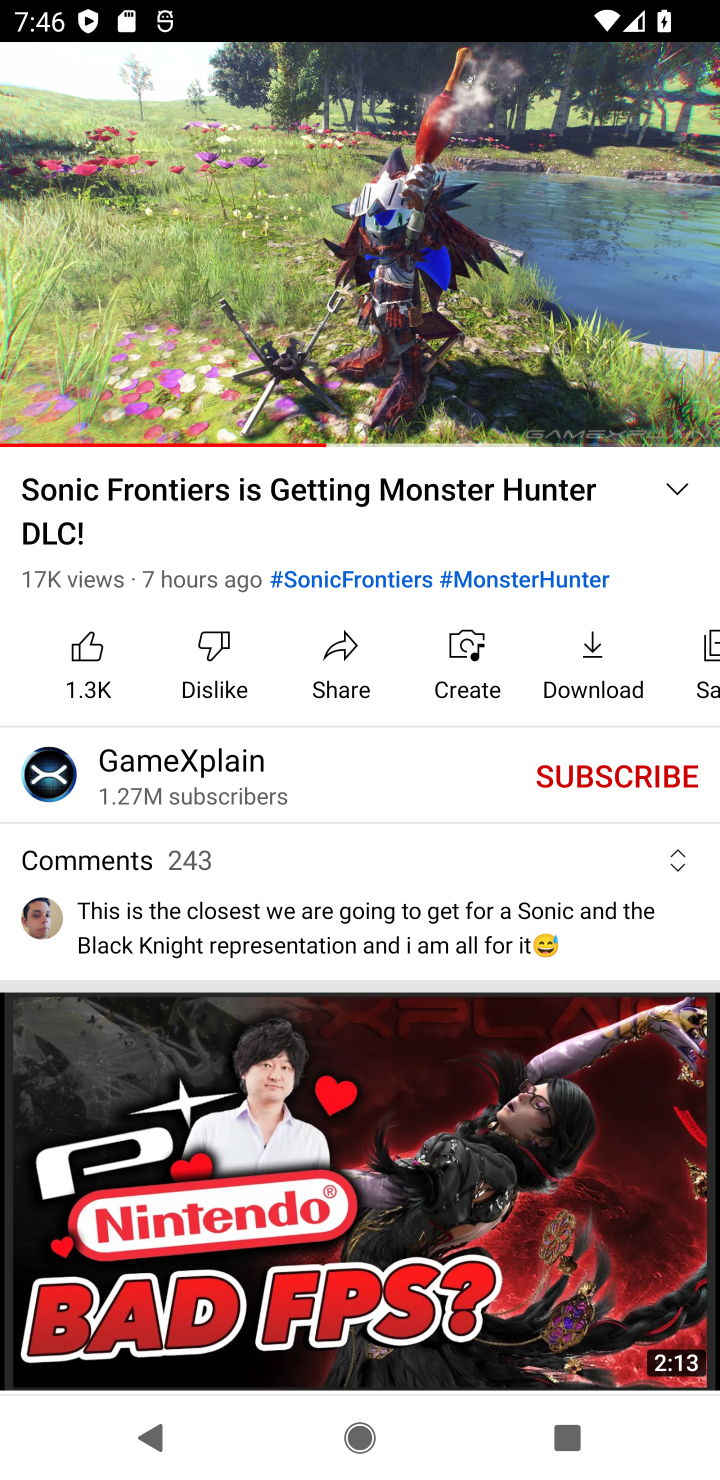
Step 30: task complete